Your task to perform on an android device: stop showing notifications on the lock screen Image 0: 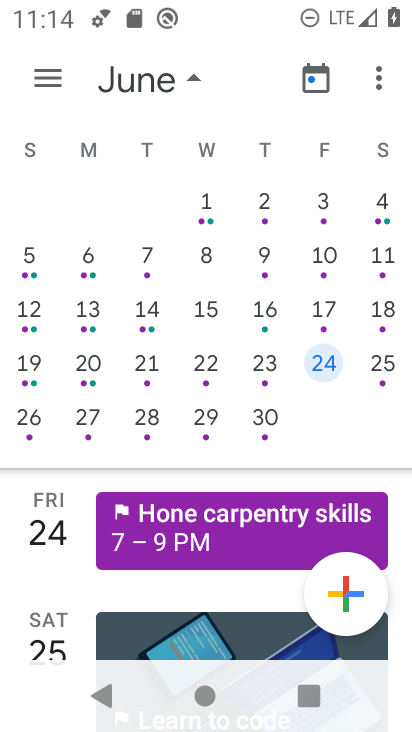
Step 0: press home button
Your task to perform on an android device: stop showing notifications on the lock screen Image 1: 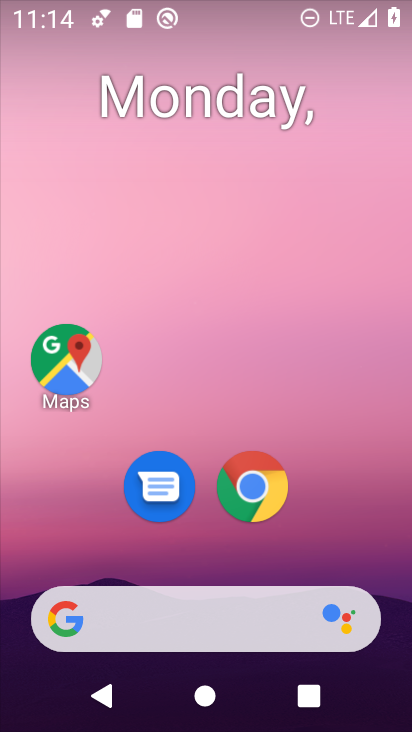
Step 1: drag from (11, 614) to (267, 203)
Your task to perform on an android device: stop showing notifications on the lock screen Image 2: 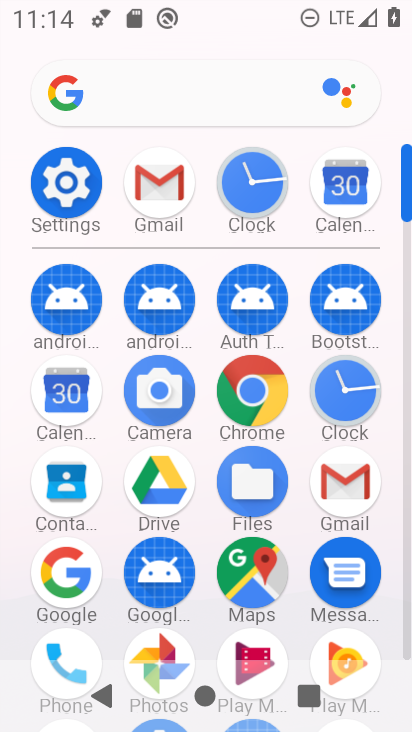
Step 2: click (66, 198)
Your task to perform on an android device: stop showing notifications on the lock screen Image 3: 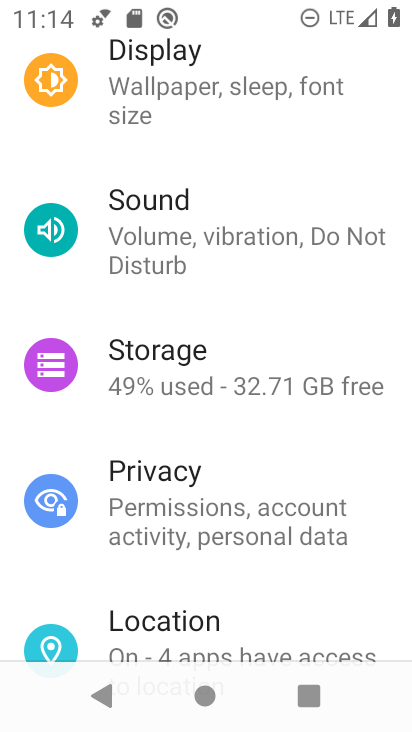
Step 3: drag from (261, 187) to (120, 601)
Your task to perform on an android device: stop showing notifications on the lock screen Image 4: 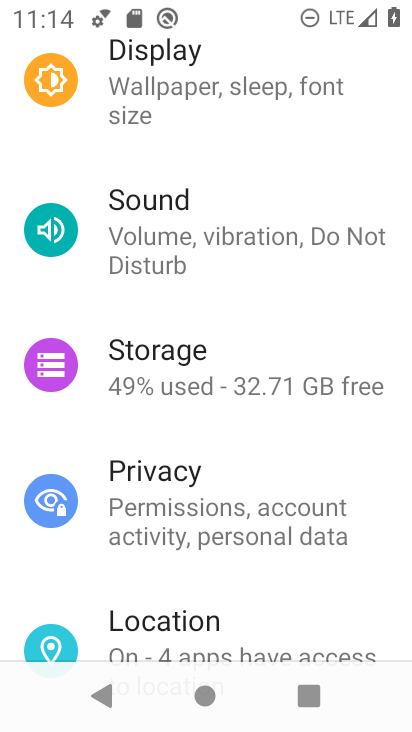
Step 4: drag from (144, 136) to (121, 600)
Your task to perform on an android device: stop showing notifications on the lock screen Image 5: 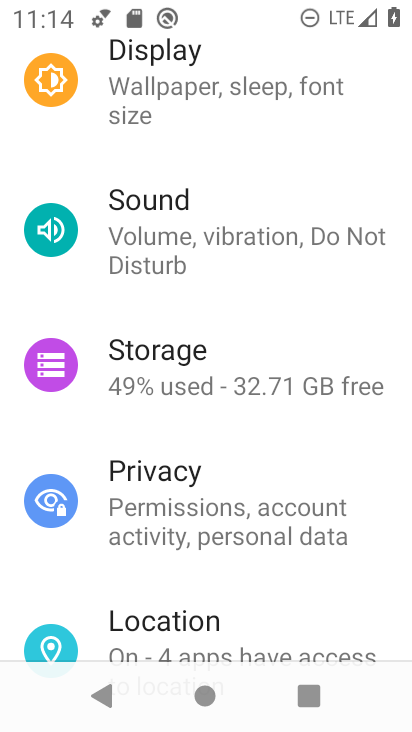
Step 5: drag from (245, 174) to (127, 604)
Your task to perform on an android device: stop showing notifications on the lock screen Image 6: 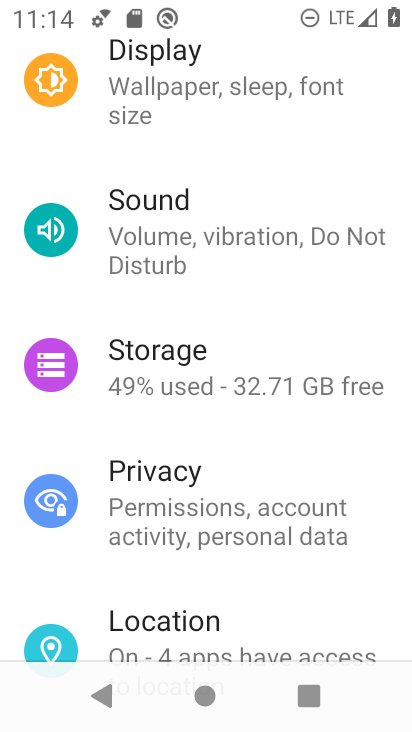
Step 6: drag from (3, 630) to (277, 171)
Your task to perform on an android device: stop showing notifications on the lock screen Image 7: 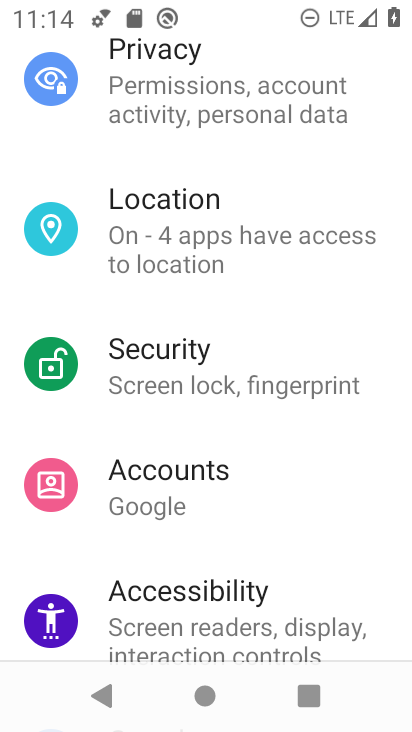
Step 7: drag from (20, 595) to (282, 233)
Your task to perform on an android device: stop showing notifications on the lock screen Image 8: 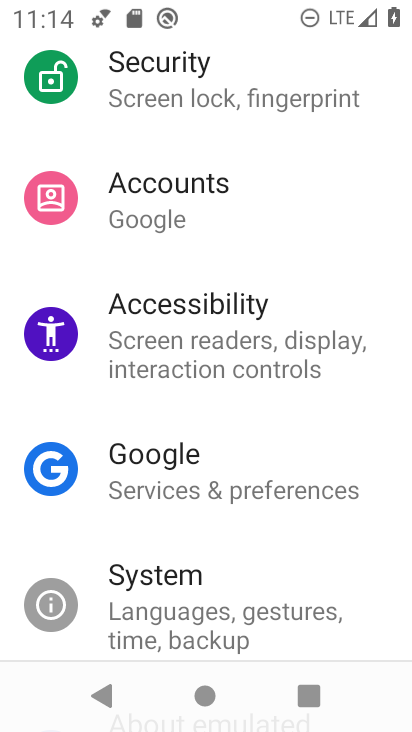
Step 8: drag from (280, 254) to (89, 701)
Your task to perform on an android device: stop showing notifications on the lock screen Image 9: 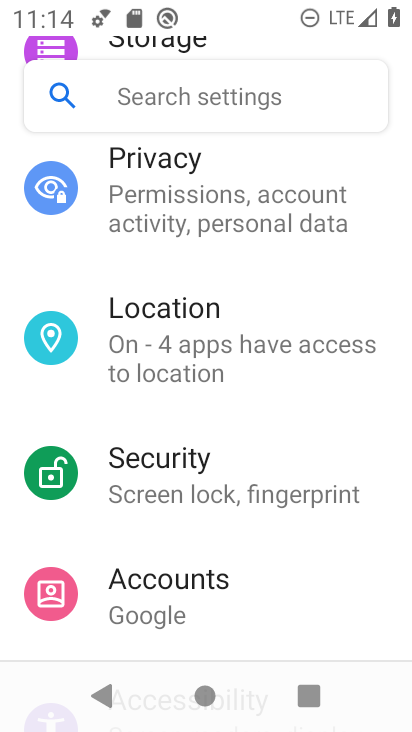
Step 9: drag from (327, 208) to (64, 675)
Your task to perform on an android device: stop showing notifications on the lock screen Image 10: 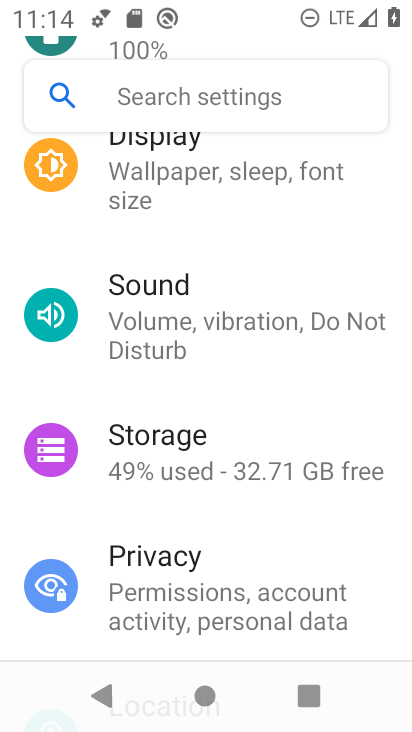
Step 10: drag from (300, 235) to (67, 730)
Your task to perform on an android device: stop showing notifications on the lock screen Image 11: 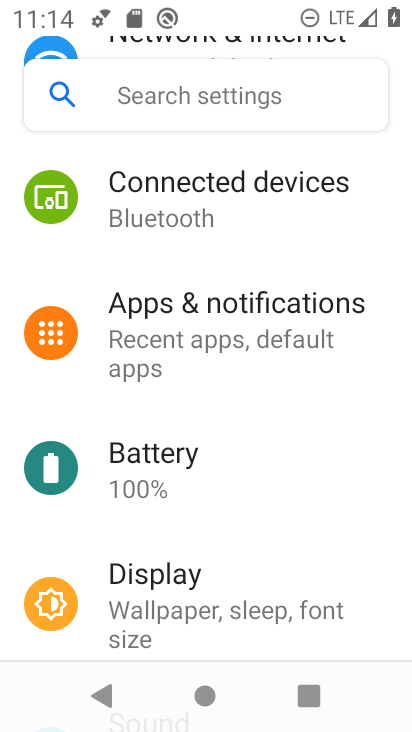
Step 11: click (262, 329)
Your task to perform on an android device: stop showing notifications on the lock screen Image 12: 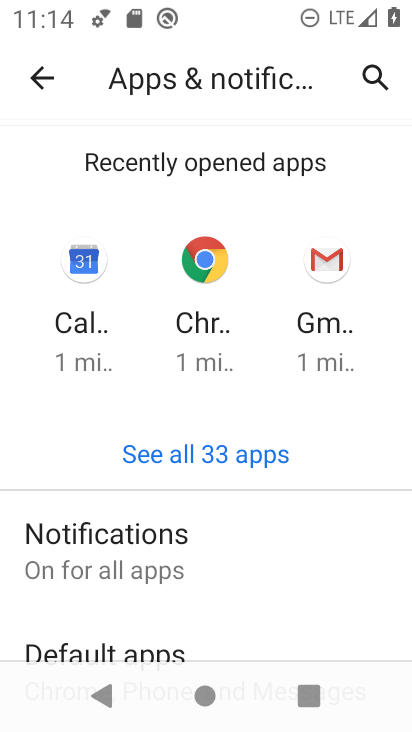
Step 12: click (66, 571)
Your task to perform on an android device: stop showing notifications on the lock screen Image 13: 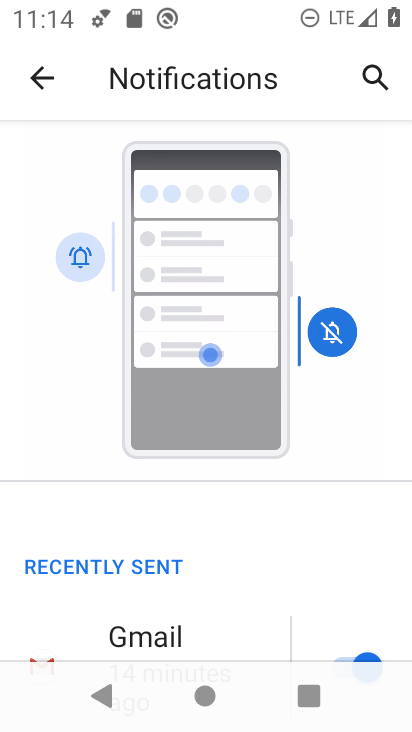
Step 13: drag from (24, 496) to (249, 184)
Your task to perform on an android device: stop showing notifications on the lock screen Image 14: 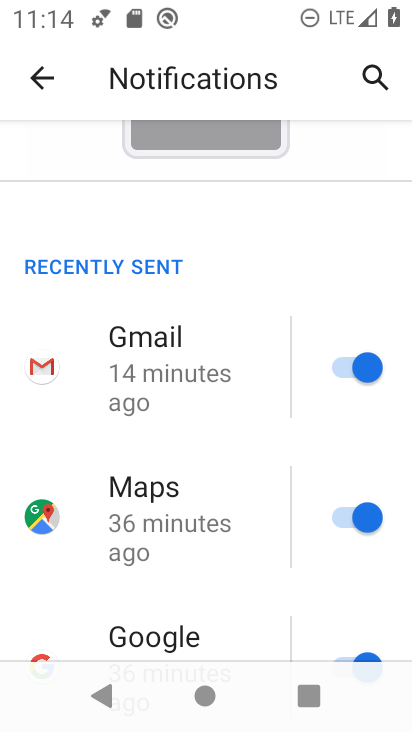
Step 14: drag from (26, 564) to (217, 300)
Your task to perform on an android device: stop showing notifications on the lock screen Image 15: 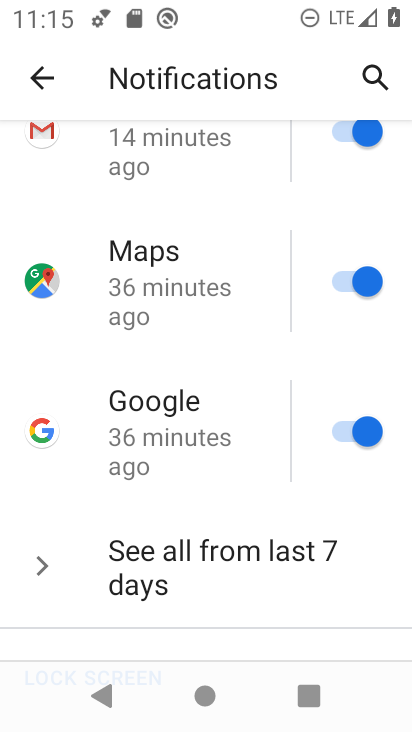
Step 15: drag from (16, 441) to (168, 221)
Your task to perform on an android device: stop showing notifications on the lock screen Image 16: 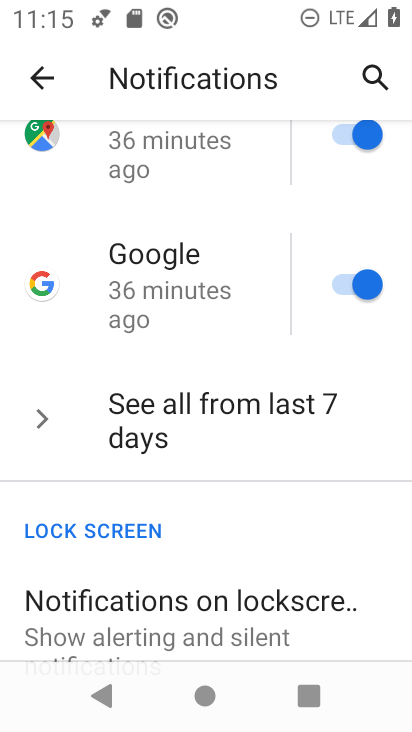
Step 16: click (136, 616)
Your task to perform on an android device: stop showing notifications on the lock screen Image 17: 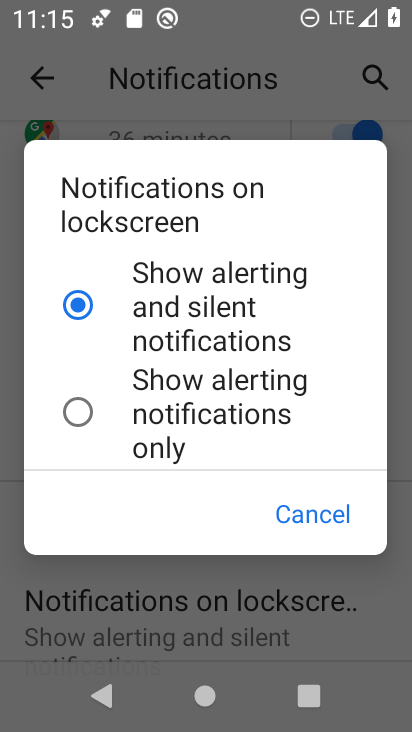
Step 17: drag from (30, 419) to (241, 159)
Your task to perform on an android device: stop showing notifications on the lock screen Image 18: 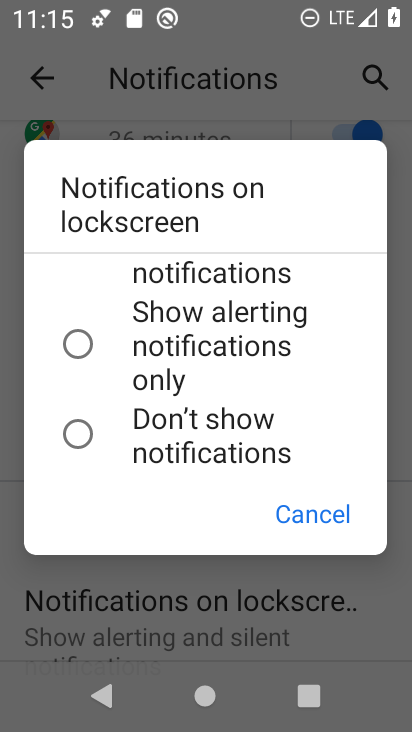
Step 18: click (64, 432)
Your task to perform on an android device: stop showing notifications on the lock screen Image 19: 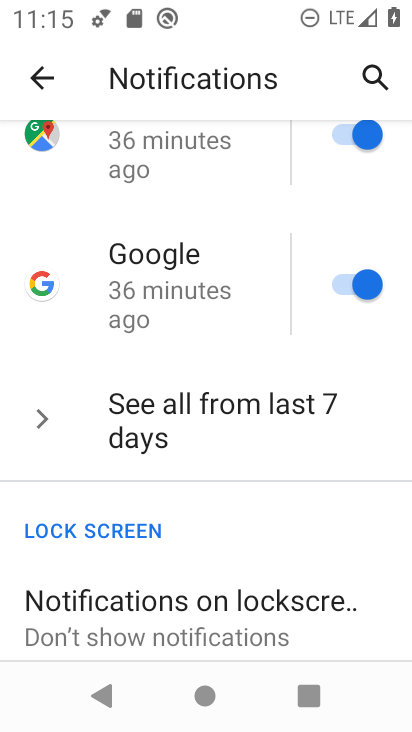
Step 19: task complete